Your task to perform on an android device: Go to CNN.com Image 0: 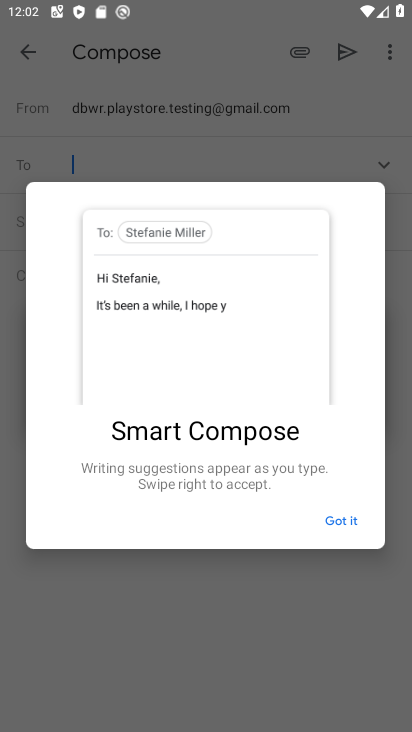
Step 0: press home button
Your task to perform on an android device: Go to CNN.com Image 1: 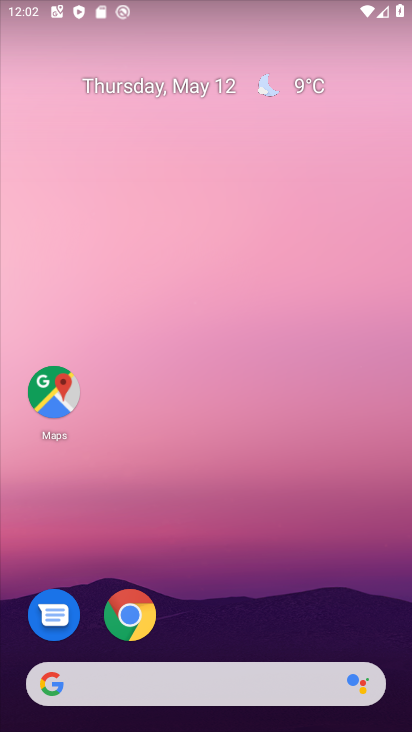
Step 1: click (123, 615)
Your task to perform on an android device: Go to CNN.com Image 2: 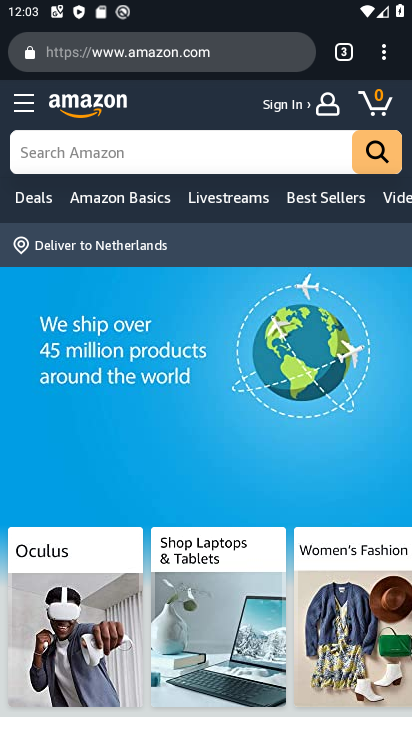
Step 2: click (167, 56)
Your task to perform on an android device: Go to CNN.com Image 3: 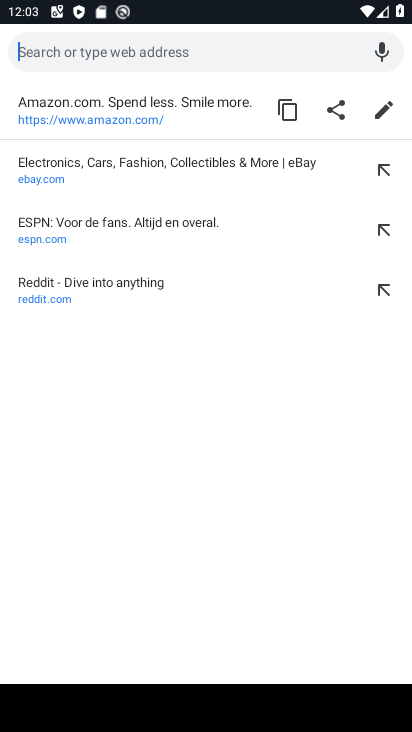
Step 3: type "cnn.com"
Your task to perform on an android device: Go to CNN.com Image 4: 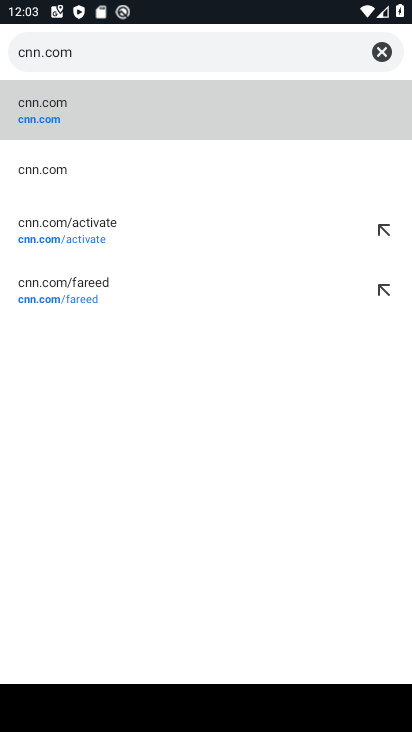
Step 4: click (43, 111)
Your task to perform on an android device: Go to CNN.com Image 5: 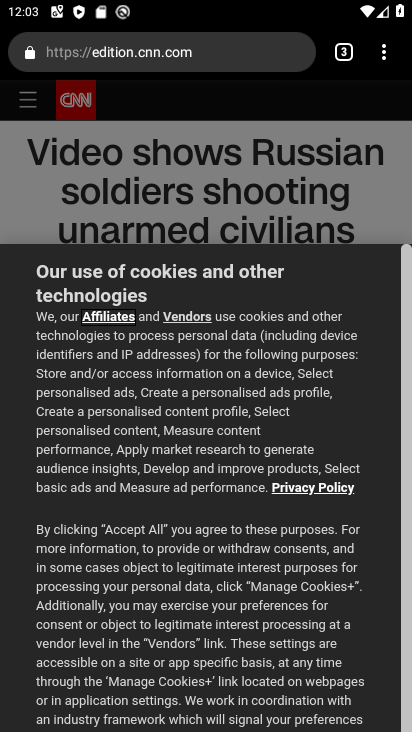
Step 5: task complete